Your task to perform on an android device: change alarm snooze length Image 0: 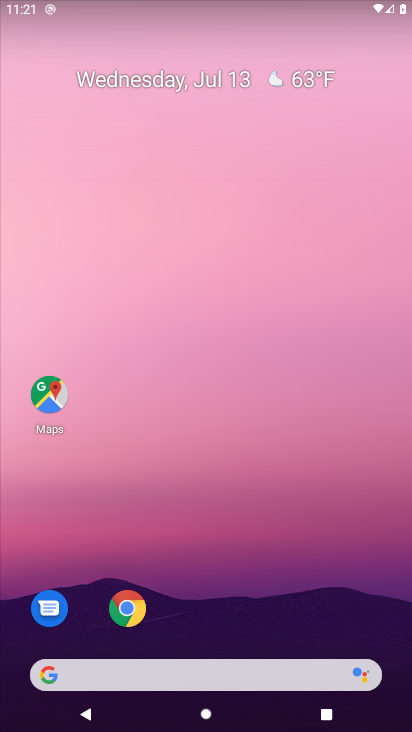
Step 0: press home button
Your task to perform on an android device: change alarm snooze length Image 1: 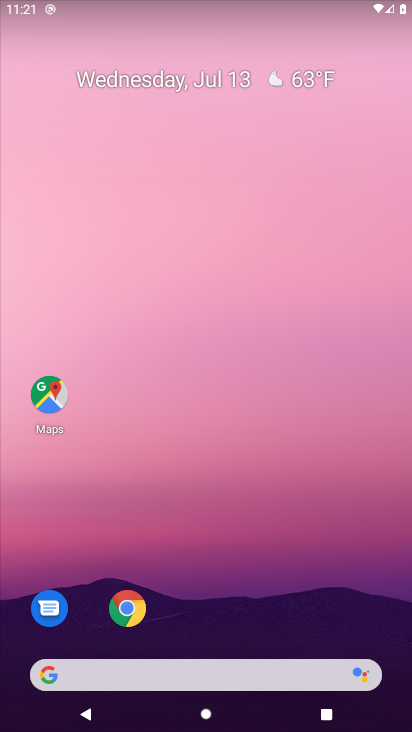
Step 1: drag from (265, 540) to (268, 30)
Your task to perform on an android device: change alarm snooze length Image 2: 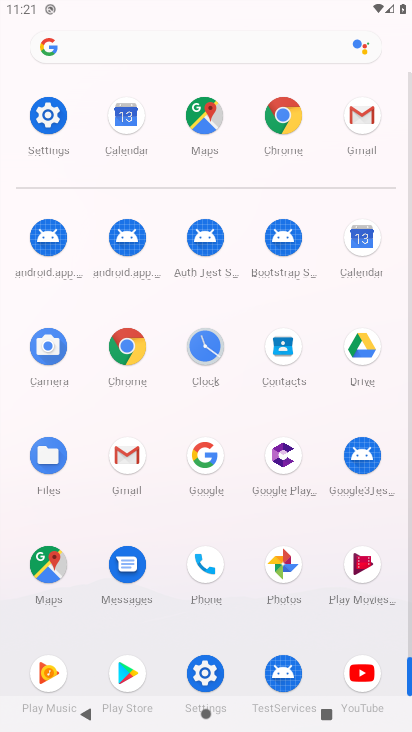
Step 2: click (205, 330)
Your task to perform on an android device: change alarm snooze length Image 3: 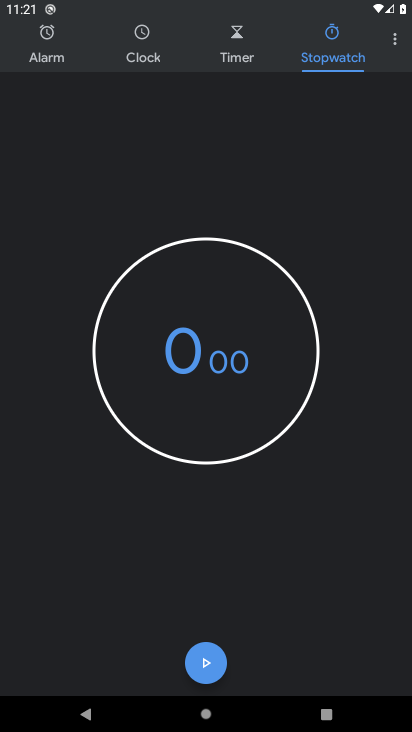
Step 3: click (398, 42)
Your task to perform on an android device: change alarm snooze length Image 4: 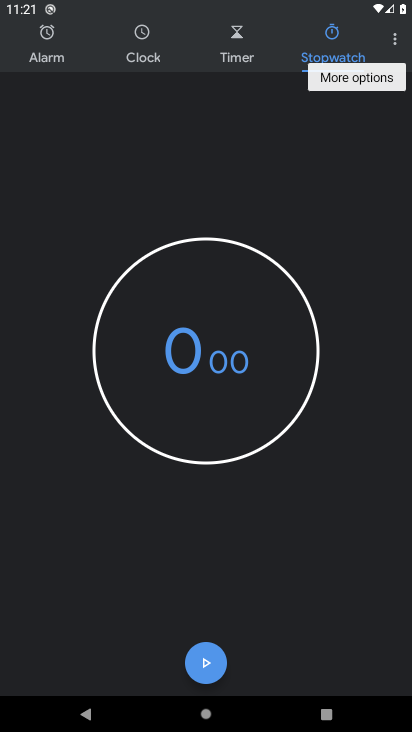
Step 4: click (398, 42)
Your task to perform on an android device: change alarm snooze length Image 5: 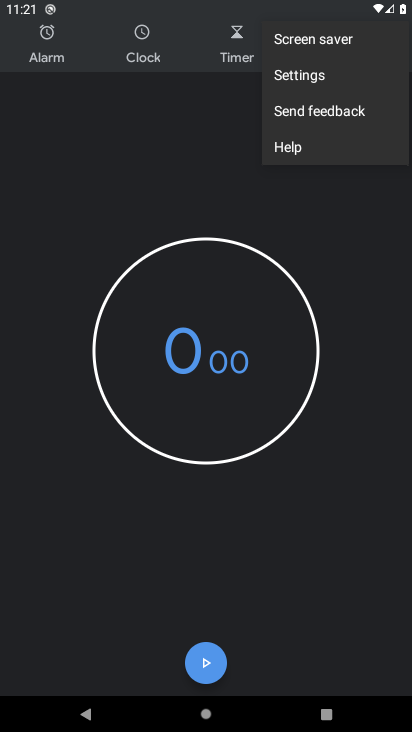
Step 5: click (332, 76)
Your task to perform on an android device: change alarm snooze length Image 6: 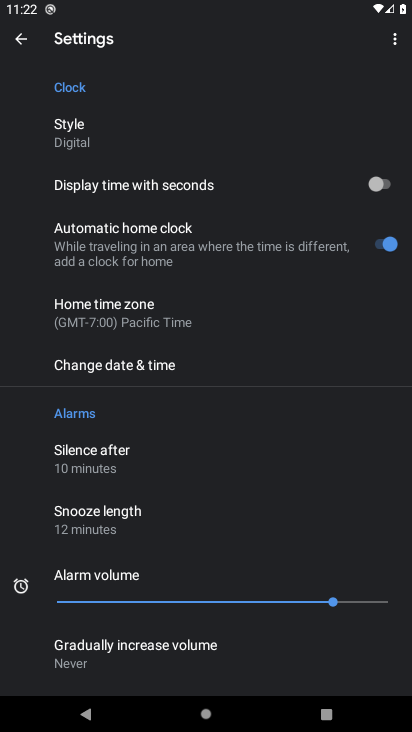
Step 6: click (114, 523)
Your task to perform on an android device: change alarm snooze length Image 7: 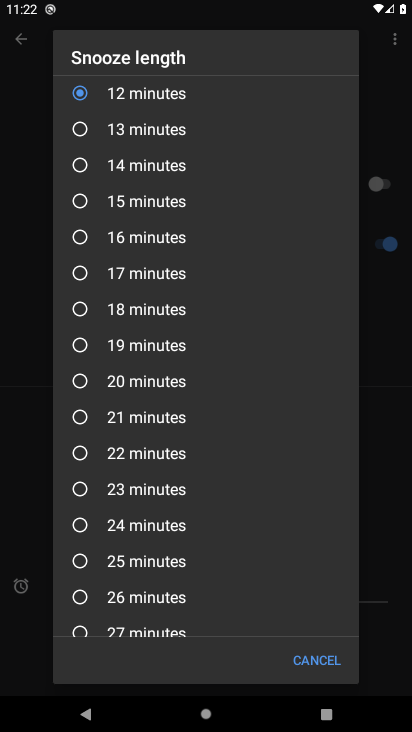
Step 7: click (88, 129)
Your task to perform on an android device: change alarm snooze length Image 8: 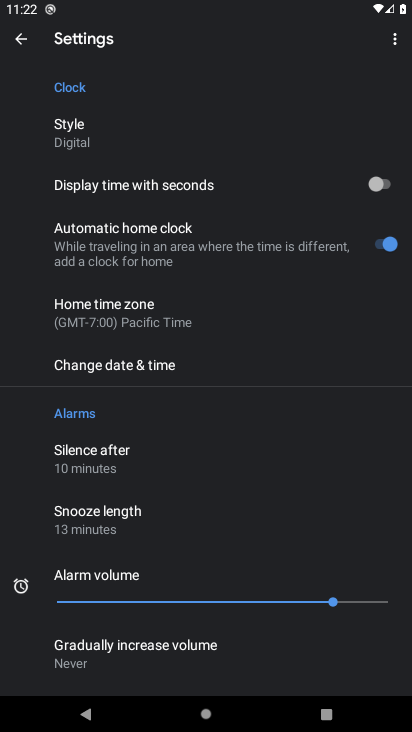
Step 8: task complete